Your task to perform on an android device: Search for logitech g910 on amazon, select the first entry, add it to the cart, then select checkout. Image 0: 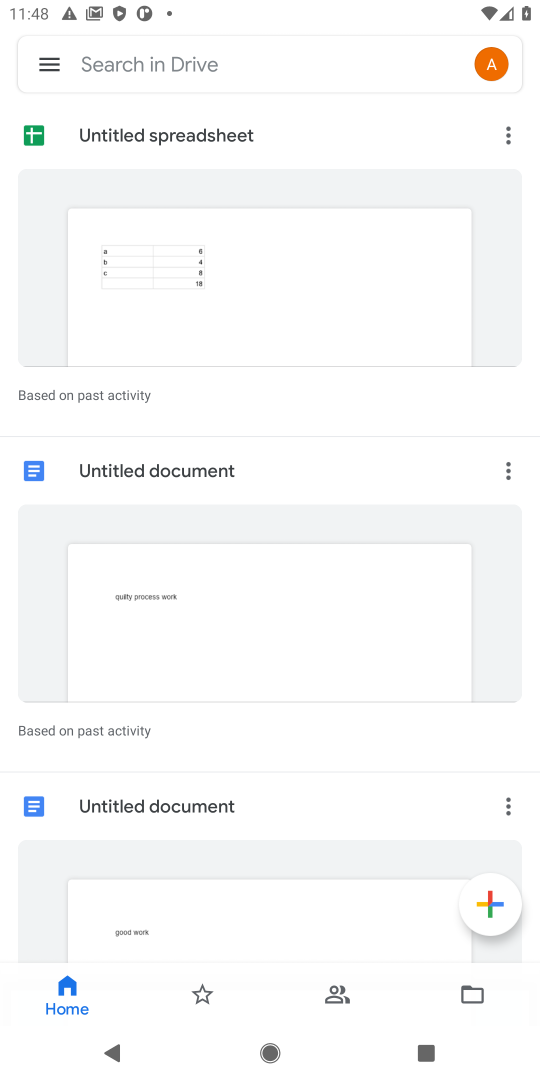
Step 0: press home button
Your task to perform on an android device: Search for logitech g910 on amazon, select the first entry, add it to the cart, then select checkout. Image 1: 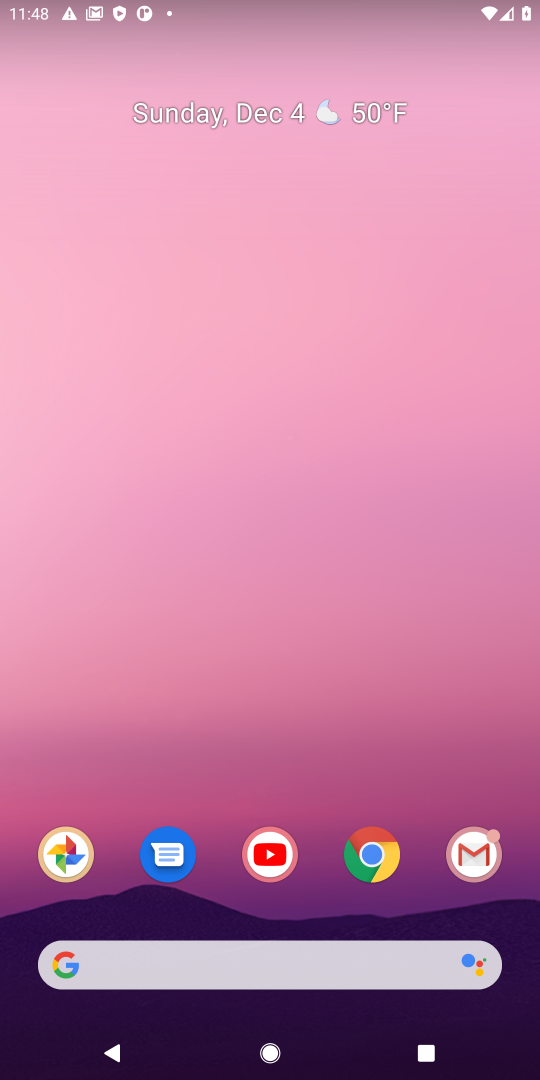
Step 1: click (234, 971)
Your task to perform on an android device: Search for logitech g910 on amazon, select the first entry, add it to the cart, then select checkout. Image 2: 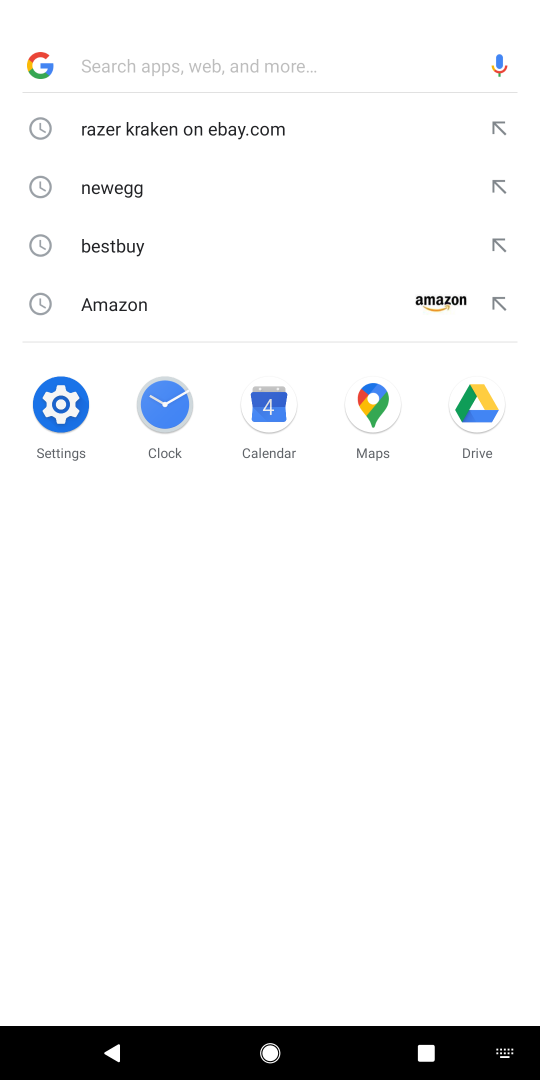
Step 2: type "ama"
Your task to perform on an android device: Search for logitech g910 on amazon, select the first entry, add it to the cart, then select checkout. Image 3: 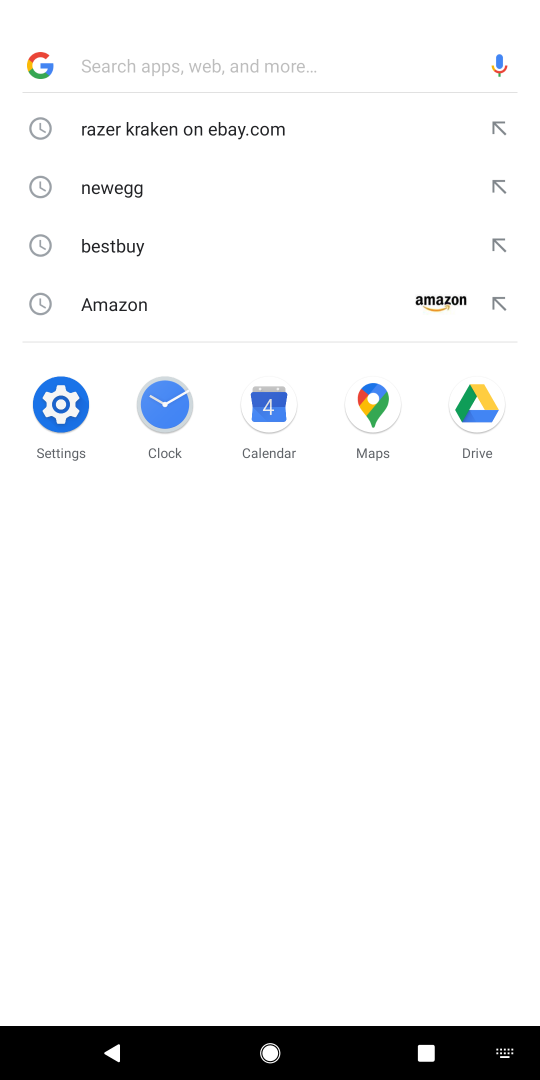
Step 3: click (184, 308)
Your task to perform on an android device: Search for logitech g910 on amazon, select the first entry, add it to the cart, then select checkout. Image 4: 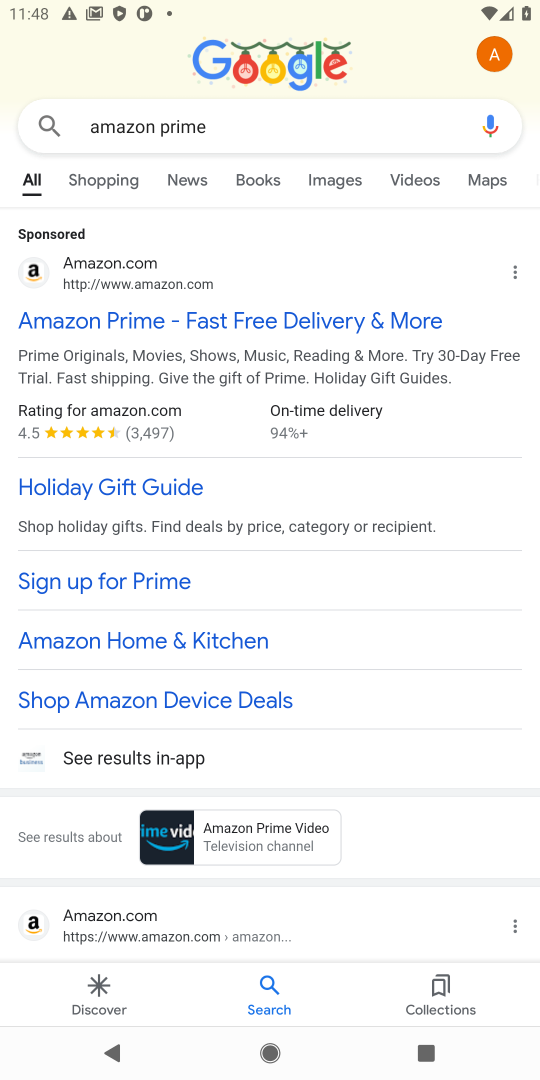
Step 4: click (184, 308)
Your task to perform on an android device: Search for logitech g910 on amazon, select the first entry, add it to the cart, then select checkout. Image 5: 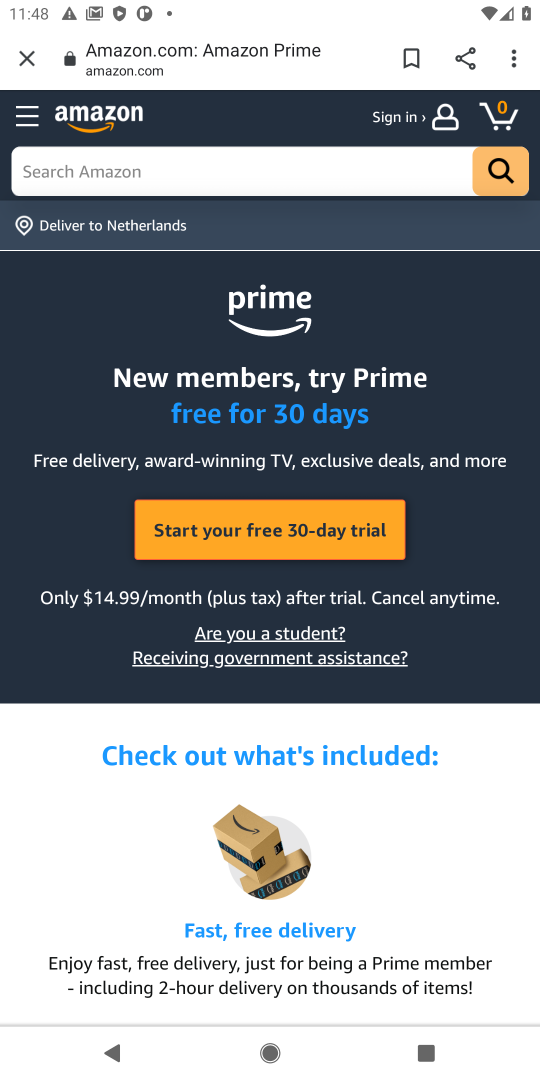
Step 5: task complete